Your task to perform on an android device: open app "Adobe Acrobat Reader" Image 0: 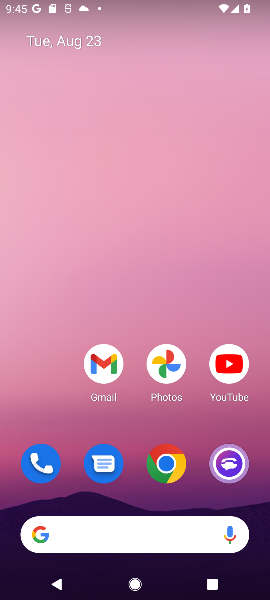
Step 0: drag from (135, 430) to (184, 15)
Your task to perform on an android device: open app "Adobe Acrobat Reader" Image 1: 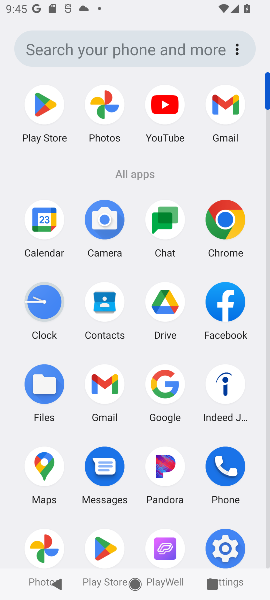
Step 1: click (41, 100)
Your task to perform on an android device: open app "Adobe Acrobat Reader" Image 2: 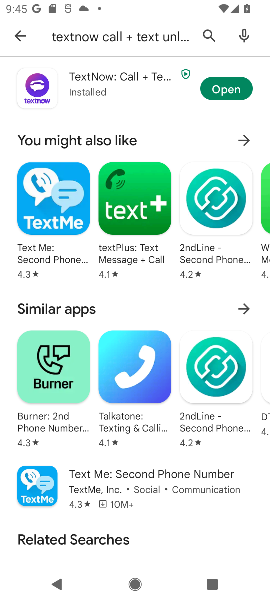
Step 2: click (204, 27)
Your task to perform on an android device: open app "Adobe Acrobat Reader" Image 3: 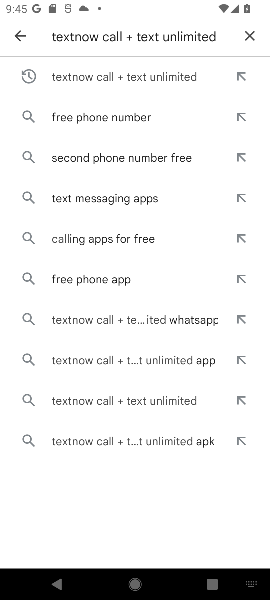
Step 3: click (245, 34)
Your task to perform on an android device: open app "Adobe Acrobat Reader" Image 4: 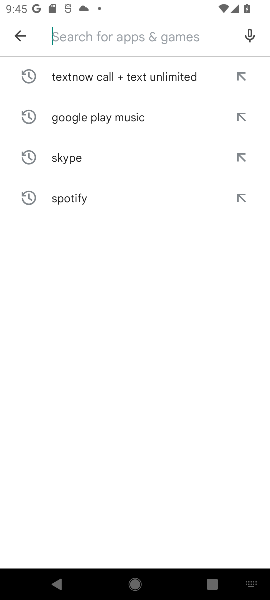
Step 4: type "Adobe Acrobat Reader"
Your task to perform on an android device: open app "Adobe Acrobat Reader" Image 5: 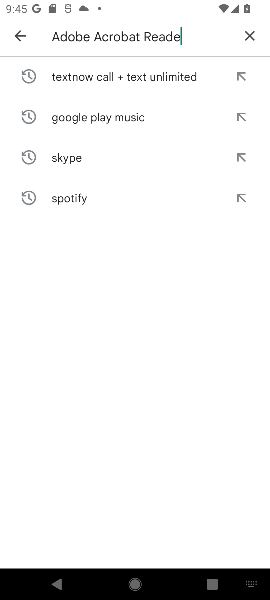
Step 5: type ""
Your task to perform on an android device: open app "Adobe Acrobat Reader" Image 6: 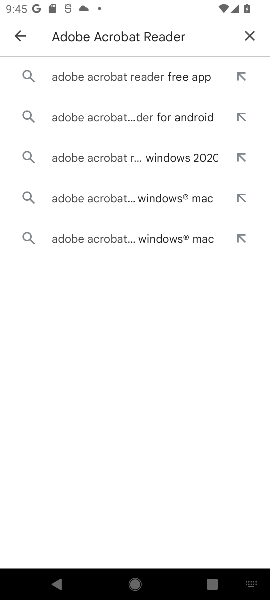
Step 6: click (169, 79)
Your task to perform on an android device: open app "Adobe Acrobat Reader" Image 7: 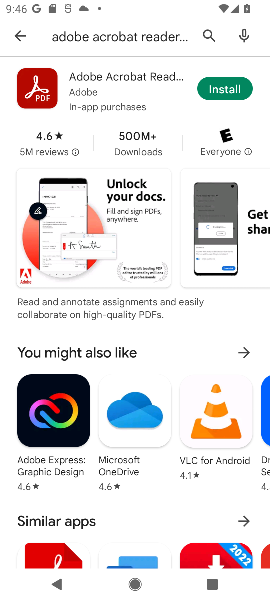
Step 7: task complete